Your task to perform on an android device: Open CNN.com Image 0: 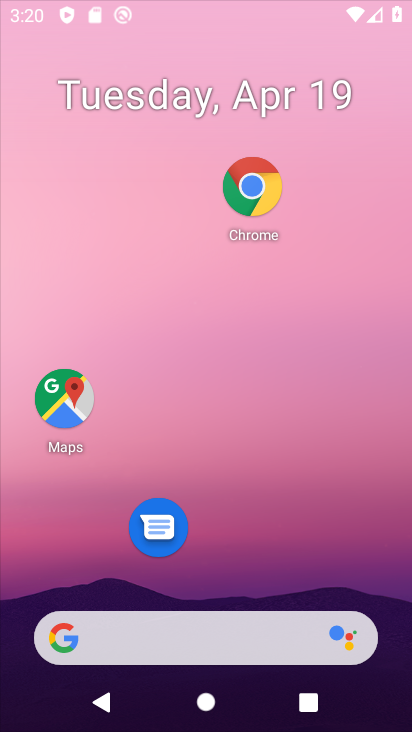
Step 0: click (244, 191)
Your task to perform on an android device: Open CNN.com Image 1: 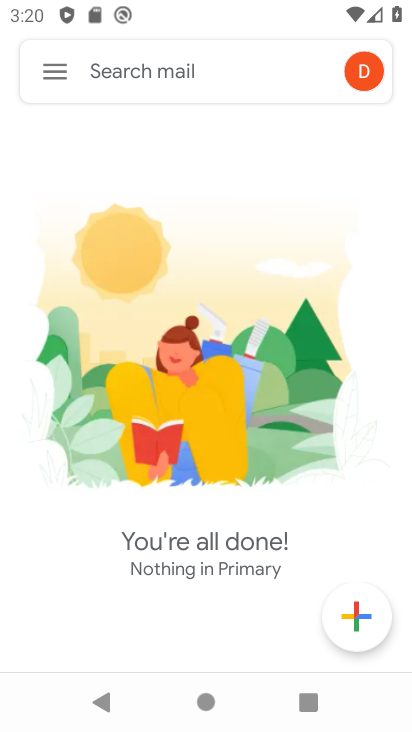
Step 1: press home button
Your task to perform on an android device: Open CNN.com Image 2: 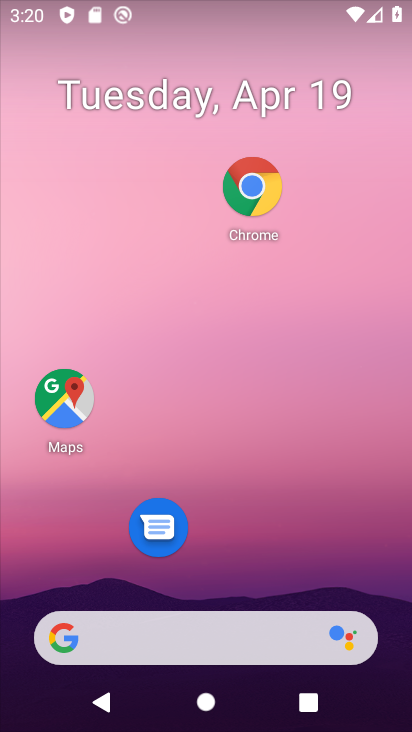
Step 2: drag from (243, 574) to (299, 229)
Your task to perform on an android device: Open CNN.com Image 3: 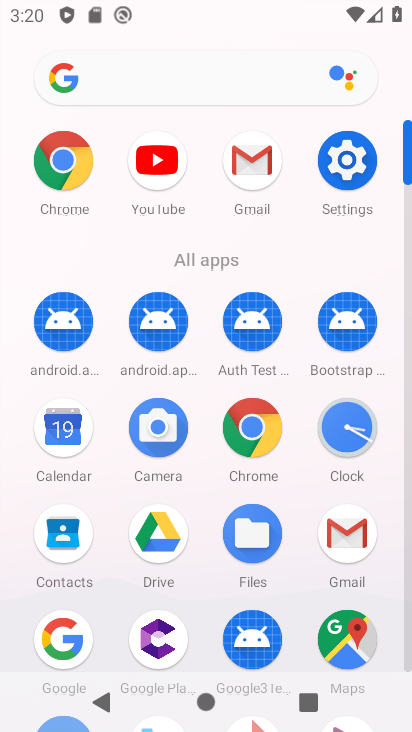
Step 3: click (260, 423)
Your task to perform on an android device: Open CNN.com Image 4: 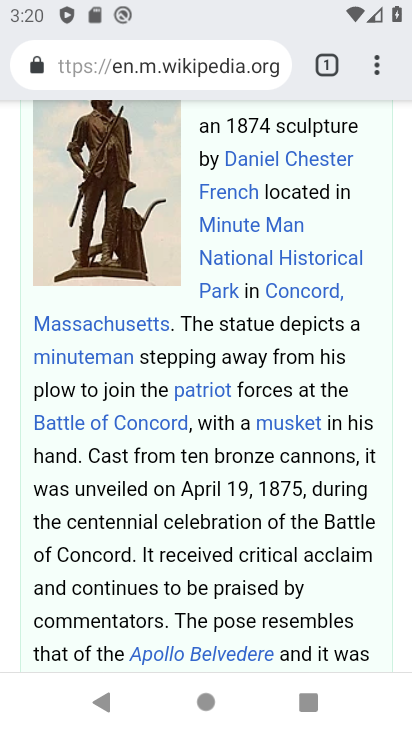
Step 4: click (377, 63)
Your task to perform on an android device: Open CNN.com Image 5: 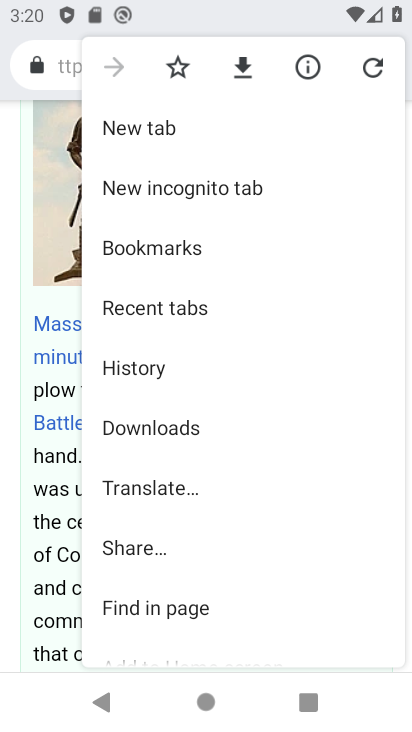
Step 5: click (186, 123)
Your task to perform on an android device: Open CNN.com Image 6: 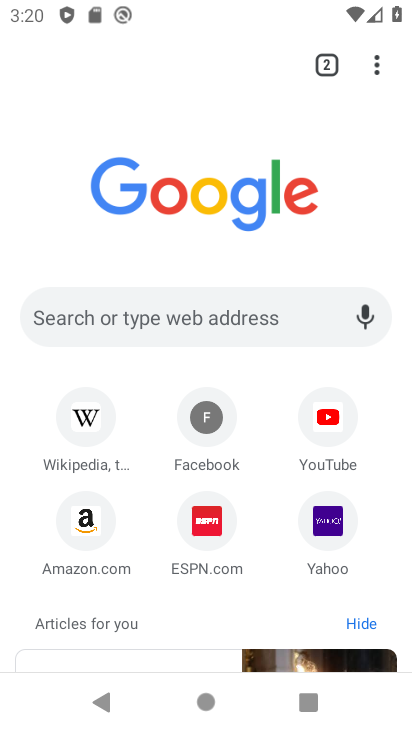
Step 6: click (263, 728)
Your task to perform on an android device: Open CNN.com Image 7: 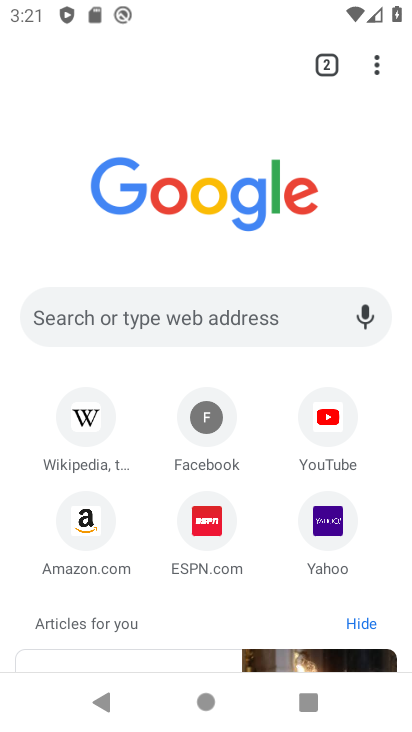
Step 7: click (263, 313)
Your task to perform on an android device: Open CNN.com Image 8: 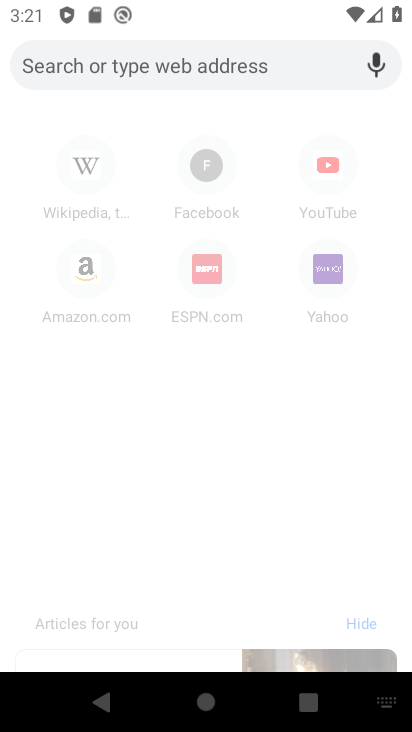
Step 8: type "CNN.com"
Your task to perform on an android device: Open CNN.com Image 9: 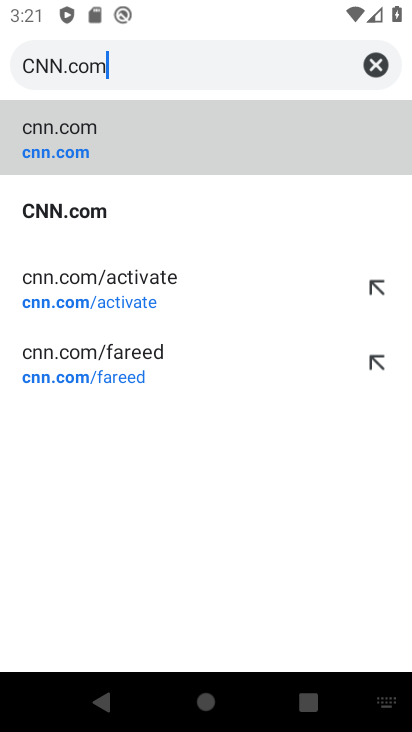
Step 9: click (115, 147)
Your task to perform on an android device: Open CNN.com Image 10: 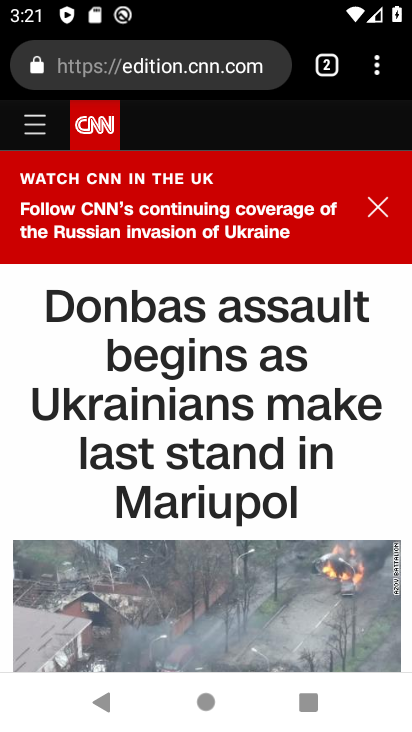
Step 10: task complete